Your task to perform on an android device: toggle airplane mode Image 0: 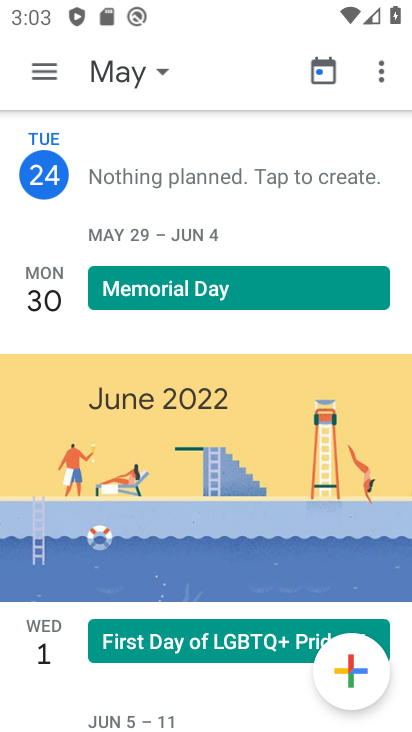
Step 0: press home button
Your task to perform on an android device: toggle airplane mode Image 1: 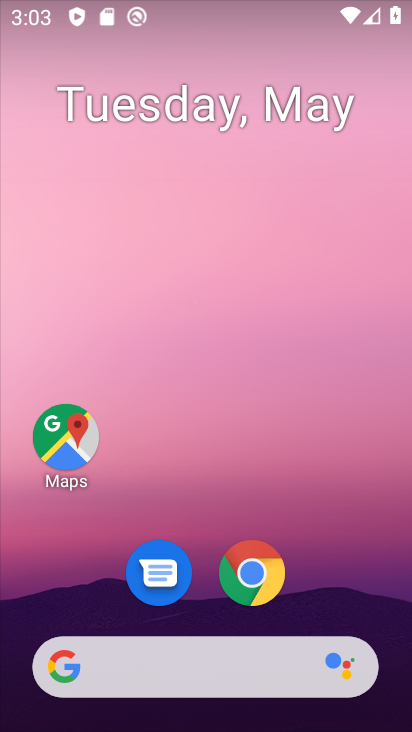
Step 1: drag from (365, 9) to (226, 536)
Your task to perform on an android device: toggle airplane mode Image 2: 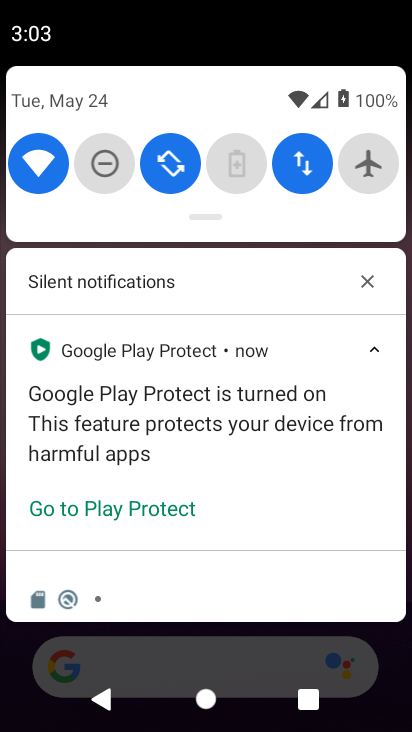
Step 2: click (372, 157)
Your task to perform on an android device: toggle airplane mode Image 3: 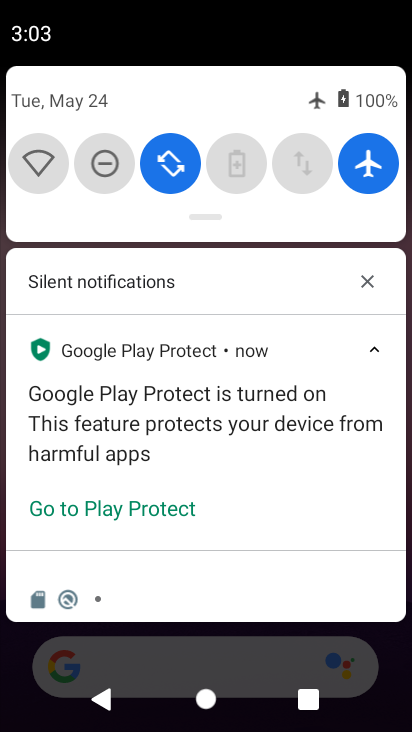
Step 3: task complete